Your task to perform on an android device: Is it going to rain tomorrow? Image 0: 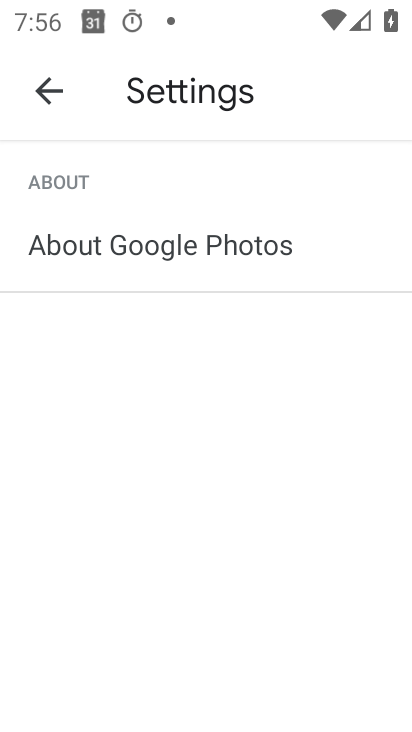
Step 0: press home button
Your task to perform on an android device: Is it going to rain tomorrow? Image 1: 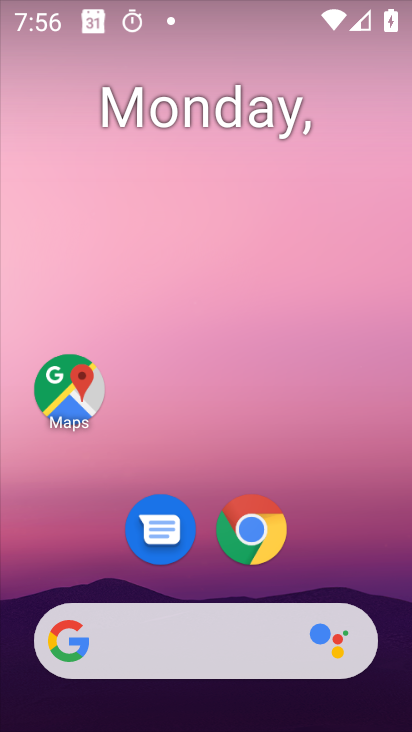
Step 1: click (180, 644)
Your task to perform on an android device: Is it going to rain tomorrow? Image 2: 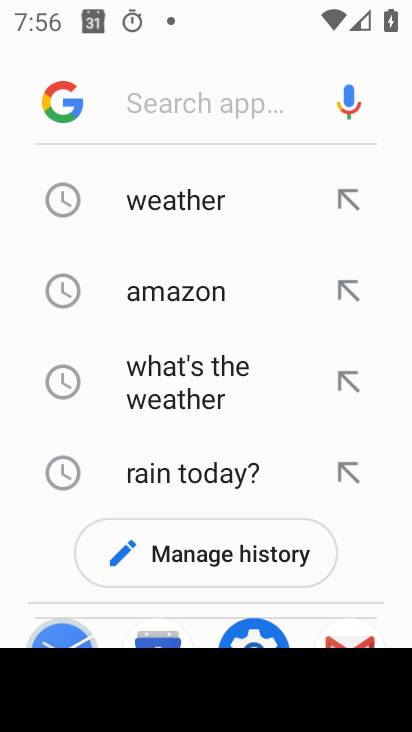
Step 2: click (141, 206)
Your task to perform on an android device: Is it going to rain tomorrow? Image 3: 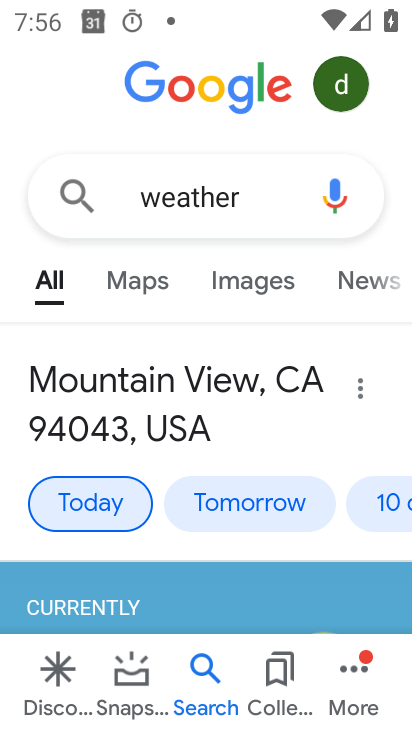
Step 3: task complete